Your task to perform on an android device: add a label to a message in the gmail app Image 0: 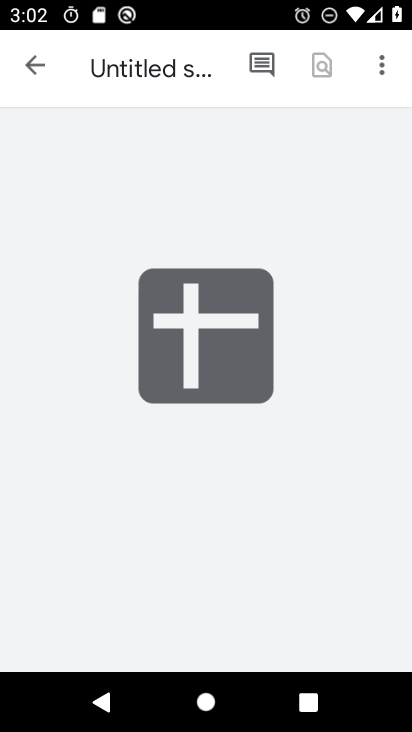
Step 0: click (22, 74)
Your task to perform on an android device: add a label to a message in the gmail app Image 1: 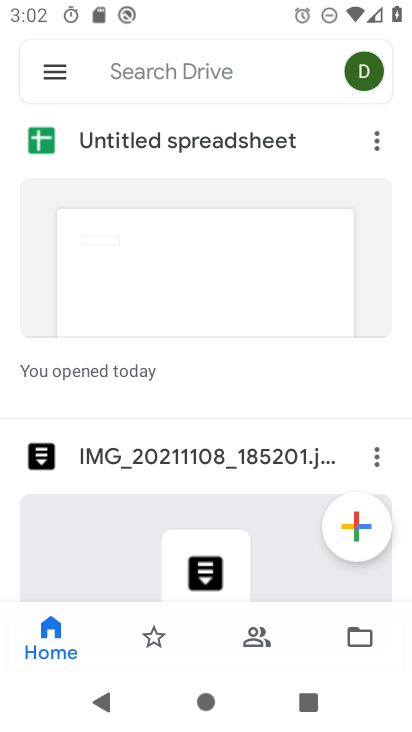
Step 1: press home button
Your task to perform on an android device: add a label to a message in the gmail app Image 2: 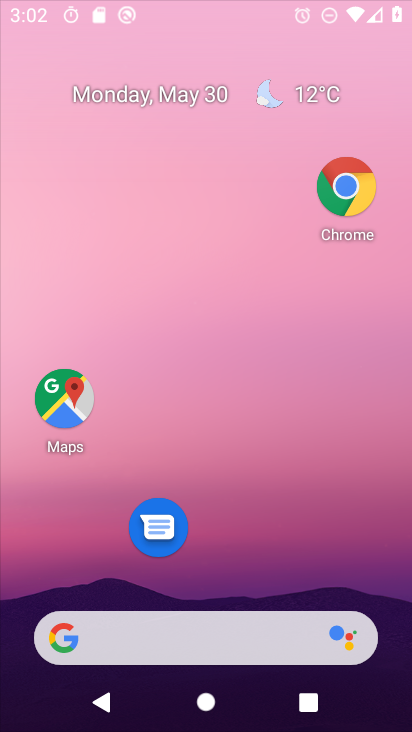
Step 2: drag from (240, 518) to (245, 83)
Your task to perform on an android device: add a label to a message in the gmail app Image 3: 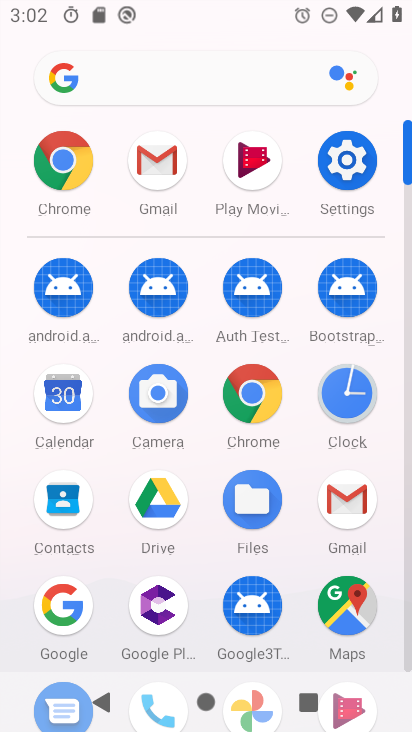
Step 3: click (343, 498)
Your task to perform on an android device: add a label to a message in the gmail app Image 4: 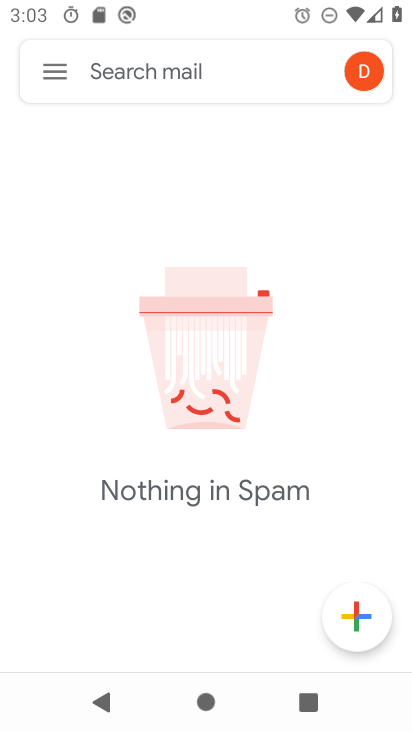
Step 4: click (51, 64)
Your task to perform on an android device: add a label to a message in the gmail app Image 5: 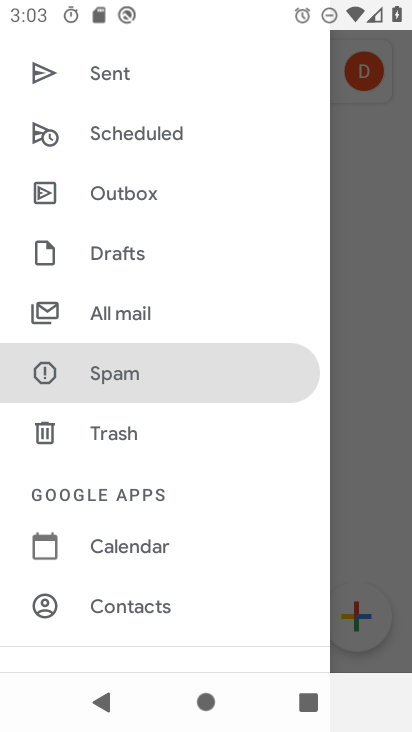
Step 5: drag from (105, 200) to (187, 637)
Your task to perform on an android device: add a label to a message in the gmail app Image 6: 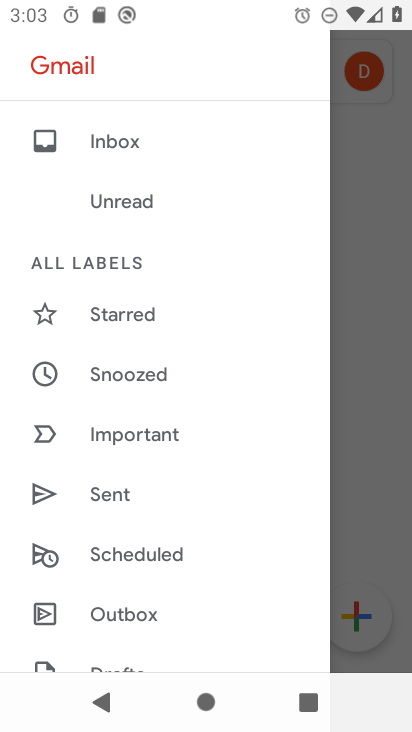
Step 6: drag from (131, 202) to (206, 665)
Your task to perform on an android device: add a label to a message in the gmail app Image 7: 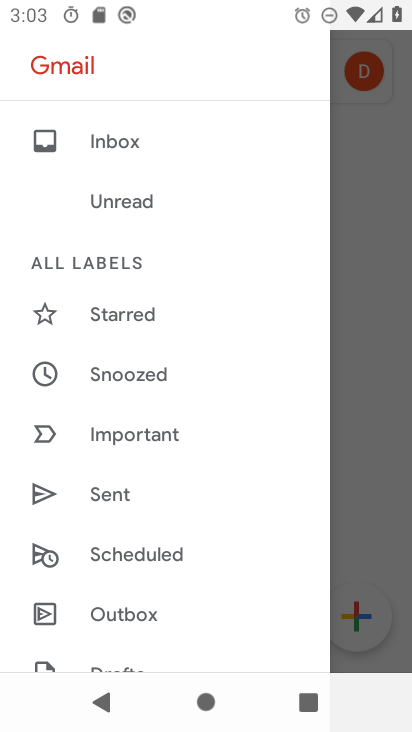
Step 7: click (134, 145)
Your task to perform on an android device: add a label to a message in the gmail app Image 8: 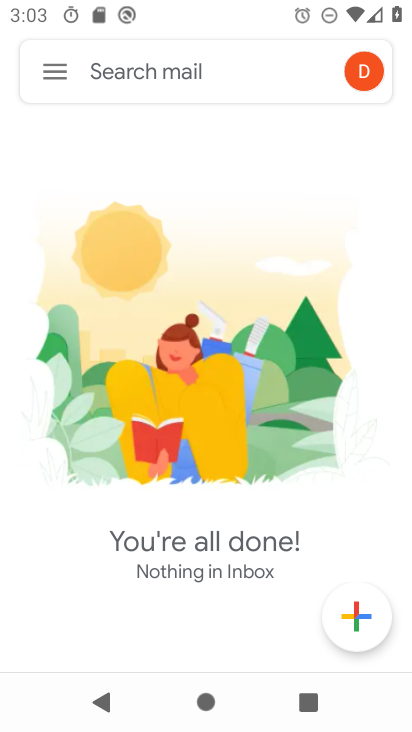
Step 8: task complete